Your task to perform on an android device: Open Amazon Image 0: 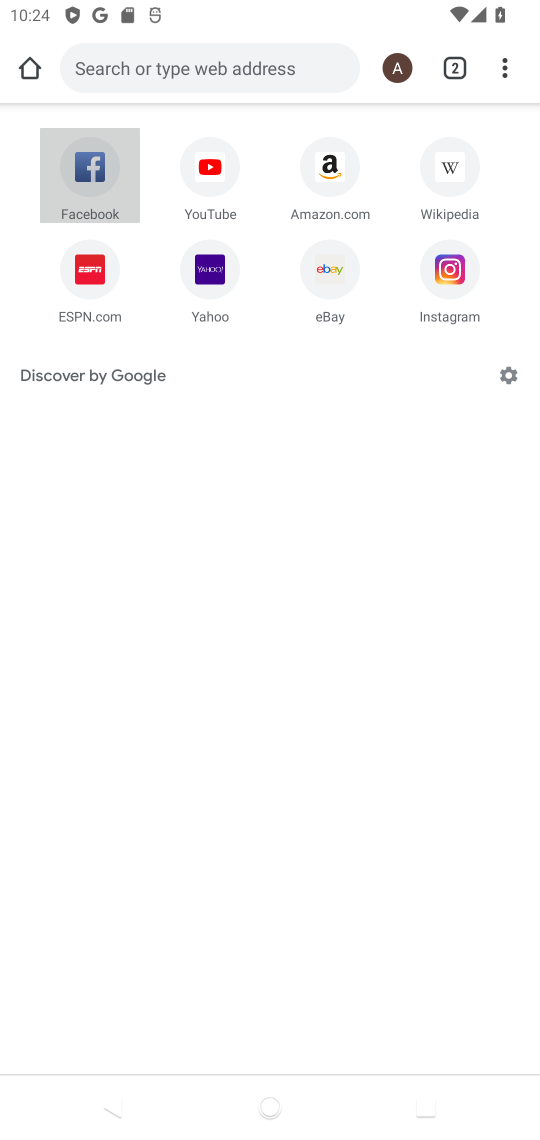
Step 0: press home button
Your task to perform on an android device: Open Amazon Image 1: 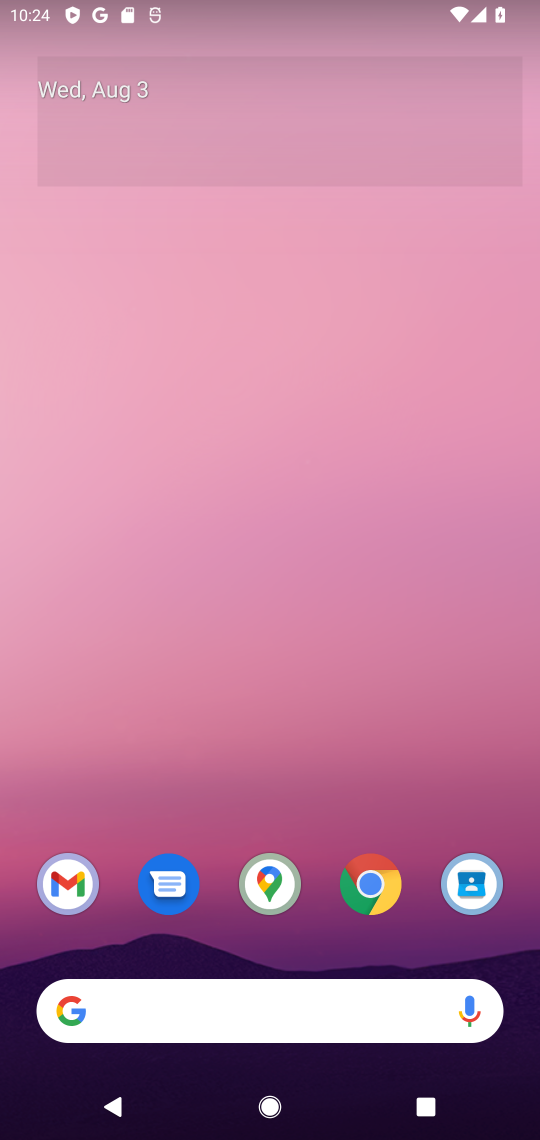
Step 1: click (94, 1022)
Your task to perform on an android device: Open Amazon Image 2: 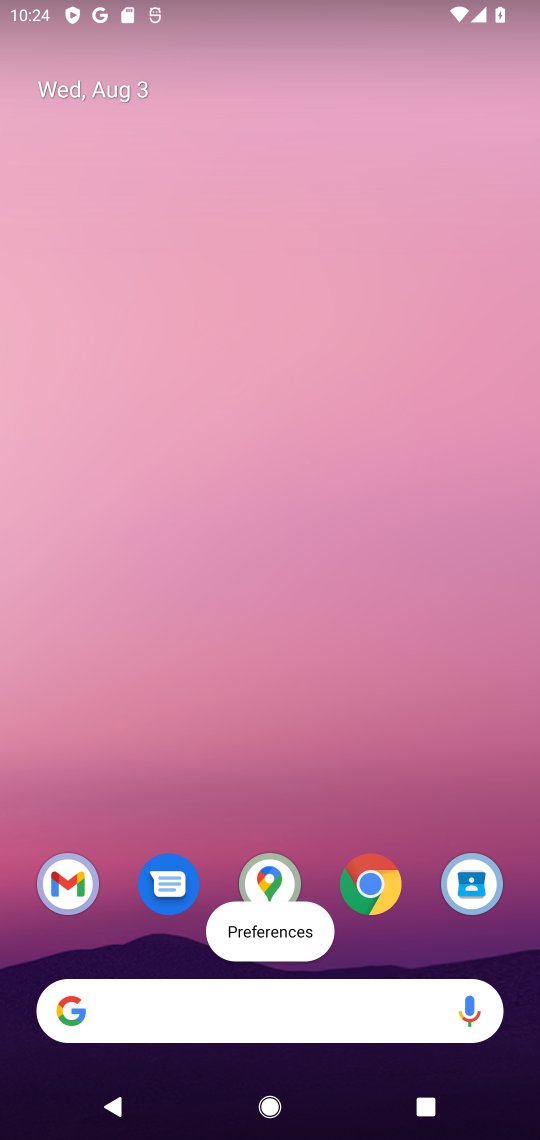
Step 2: click (78, 1007)
Your task to perform on an android device: Open Amazon Image 3: 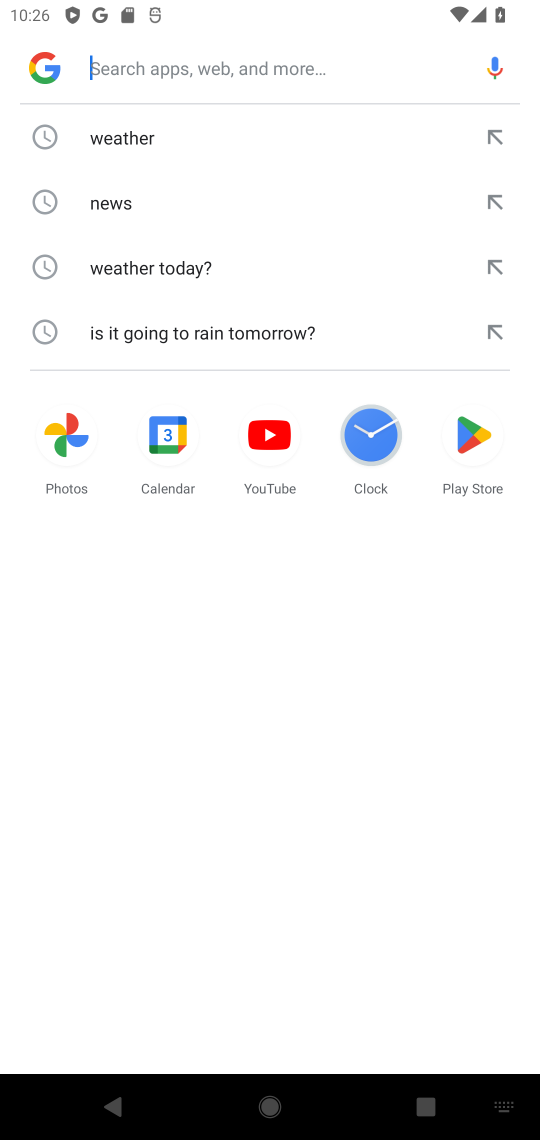
Step 3: type "Amazon"
Your task to perform on an android device: Open Amazon Image 4: 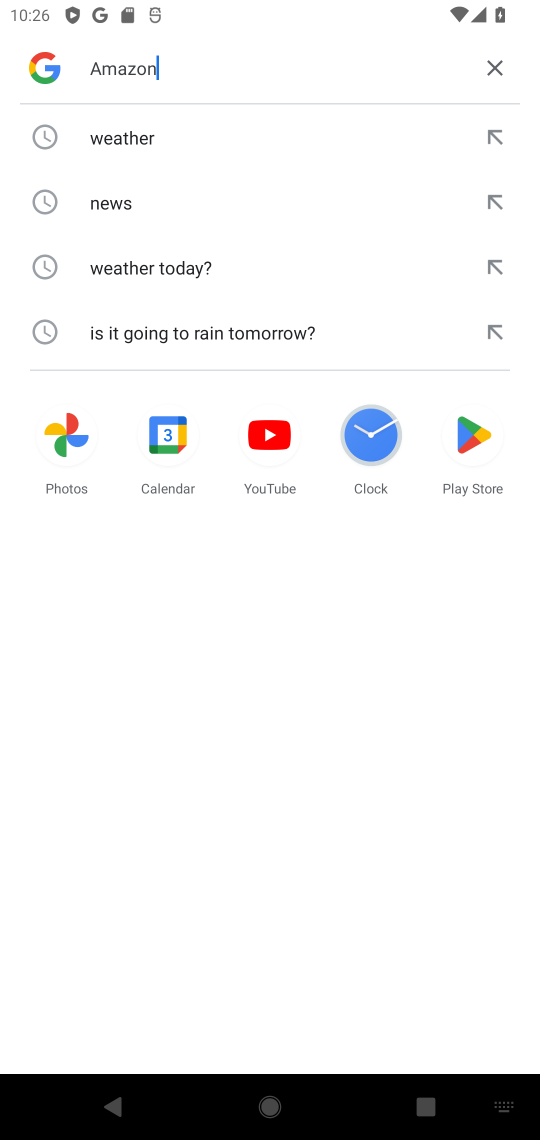
Step 4: press enter
Your task to perform on an android device: Open Amazon Image 5: 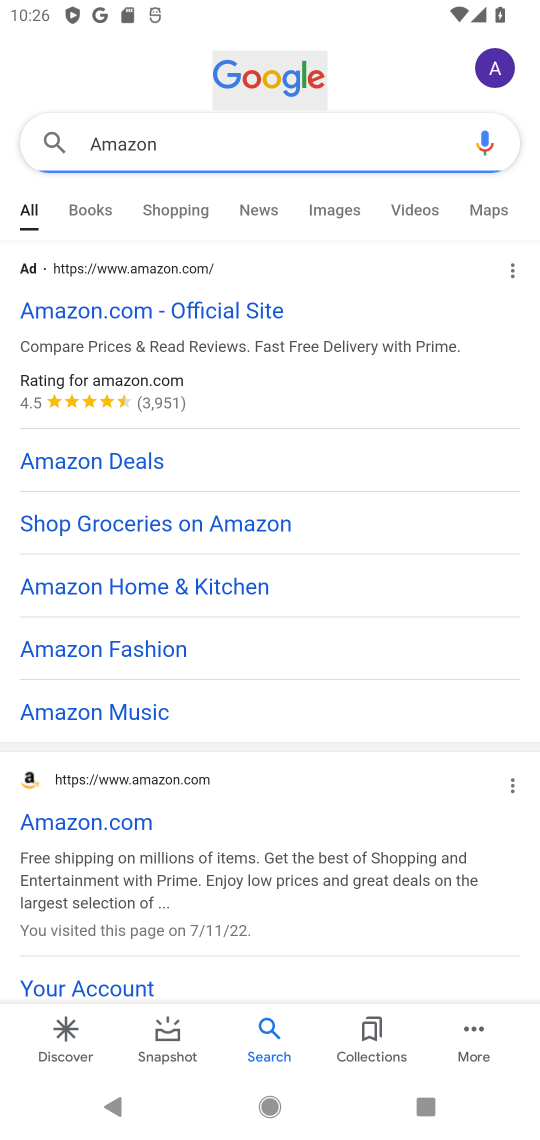
Step 5: click (126, 316)
Your task to perform on an android device: Open Amazon Image 6: 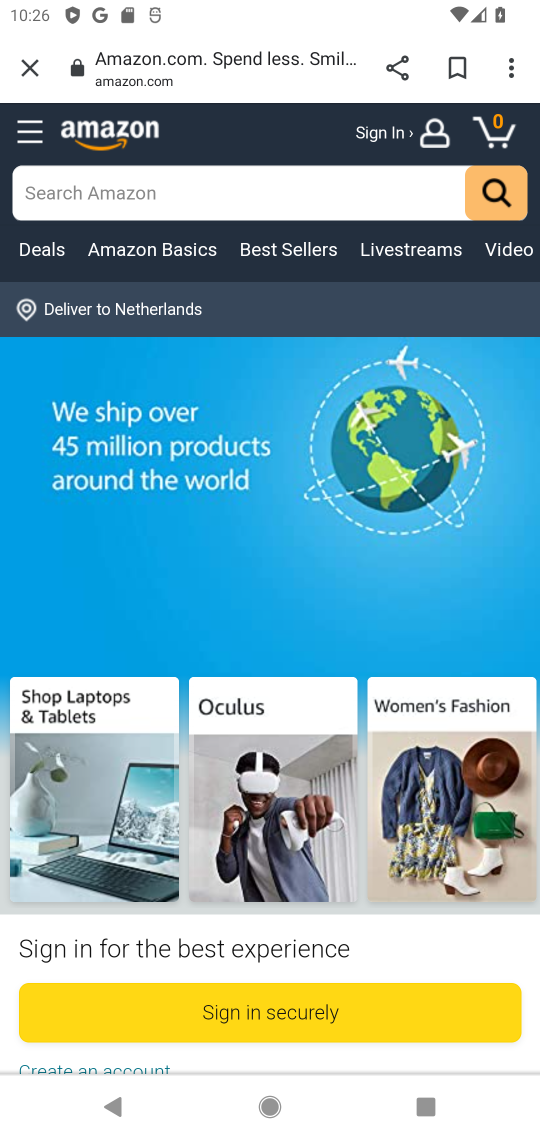
Step 6: task complete